Your task to perform on an android device: open device folders in google photos Image 0: 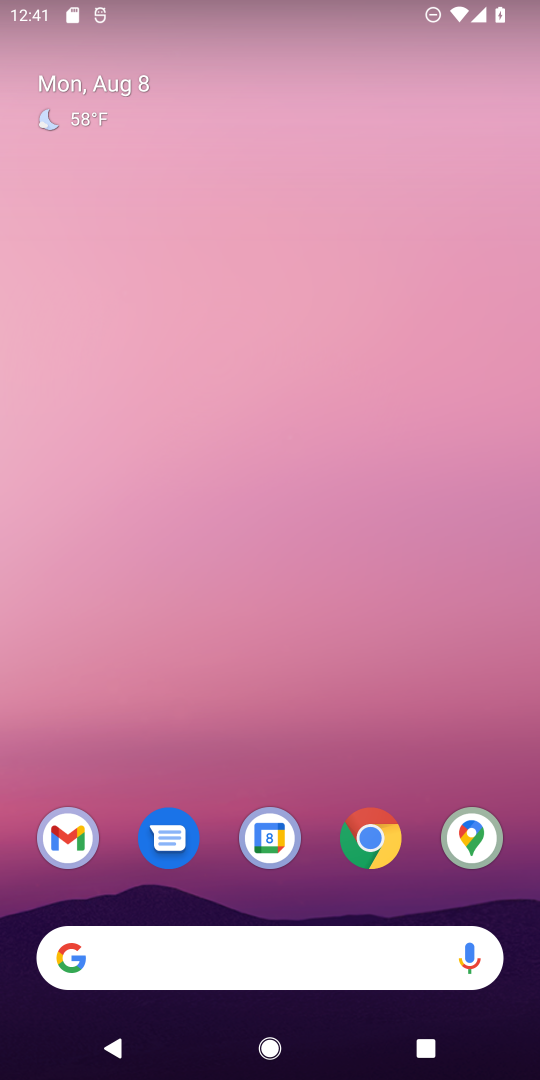
Step 0: press home button
Your task to perform on an android device: open device folders in google photos Image 1: 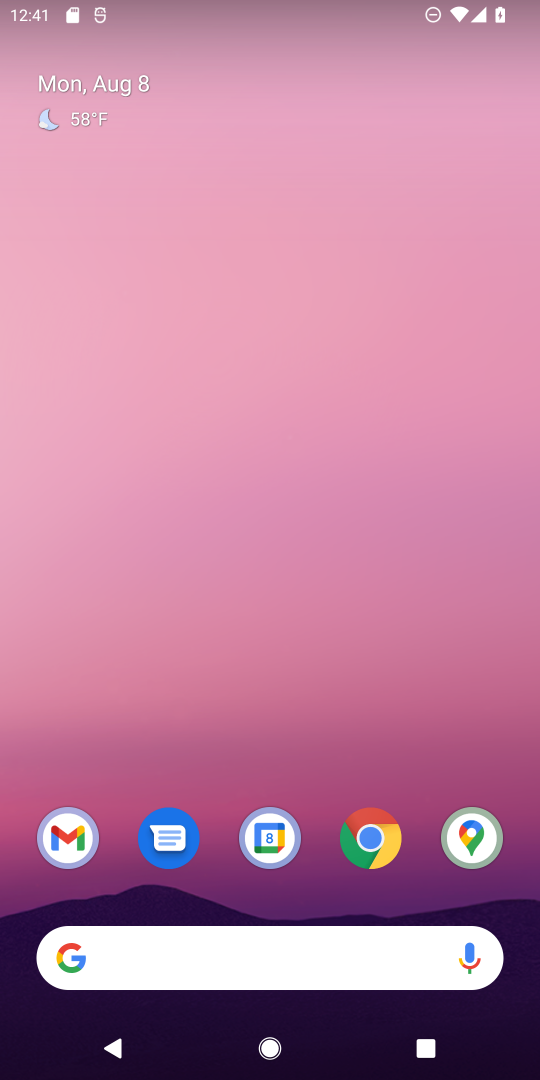
Step 1: drag from (330, 893) to (314, 136)
Your task to perform on an android device: open device folders in google photos Image 2: 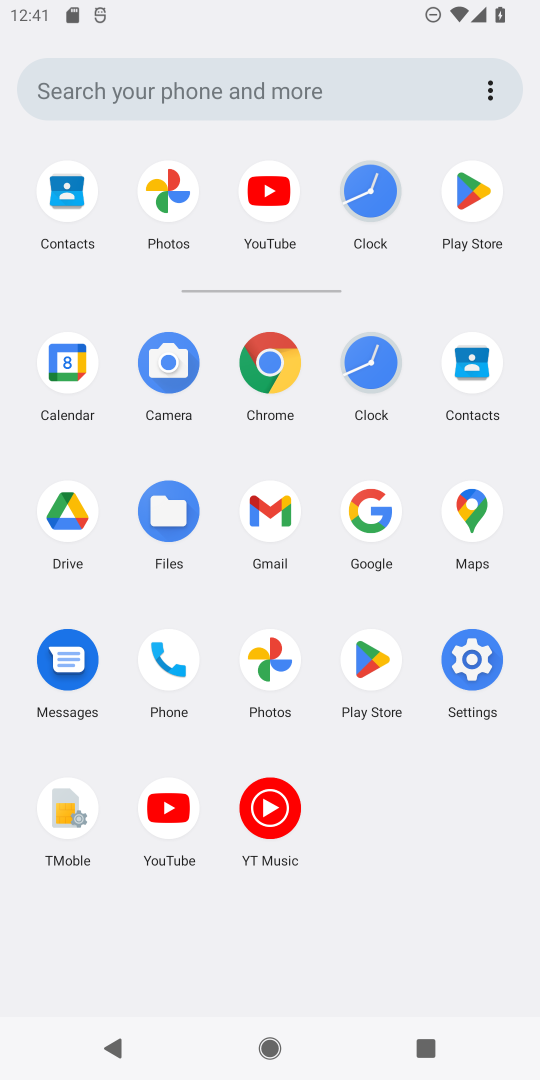
Step 2: click (267, 651)
Your task to perform on an android device: open device folders in google photos Image 3: 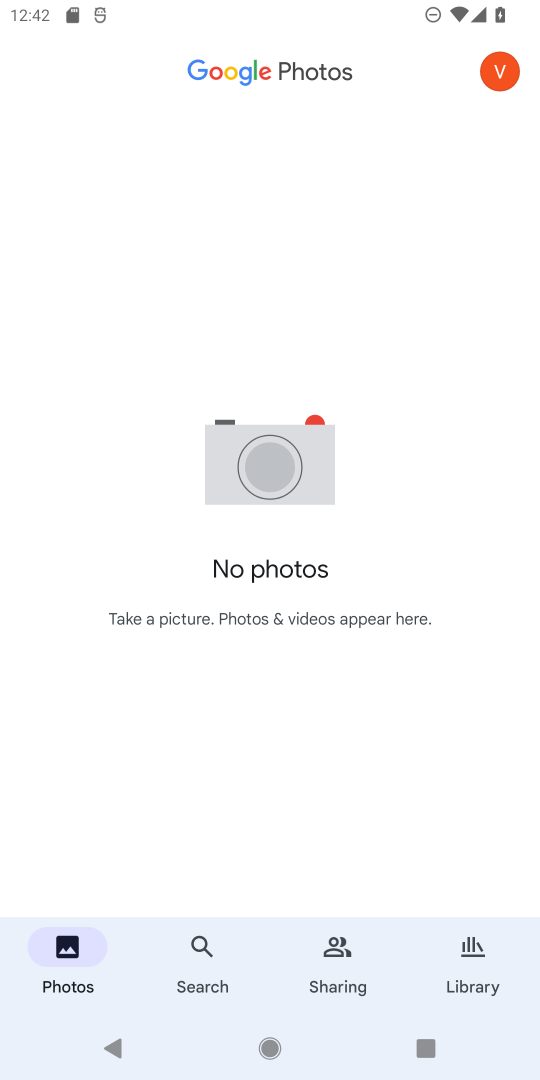
Step 3: task complete